Your task to perform on an android device: turn off priority inbox in the gmail app Image 0: 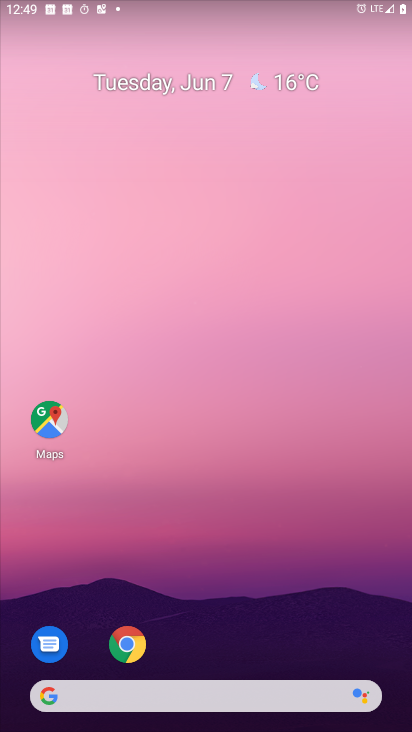
Step 0: drag from (33, 515) to (309, 68)
Your task to perform on an android device: turn off priority inbox in the gmail app Image 1: 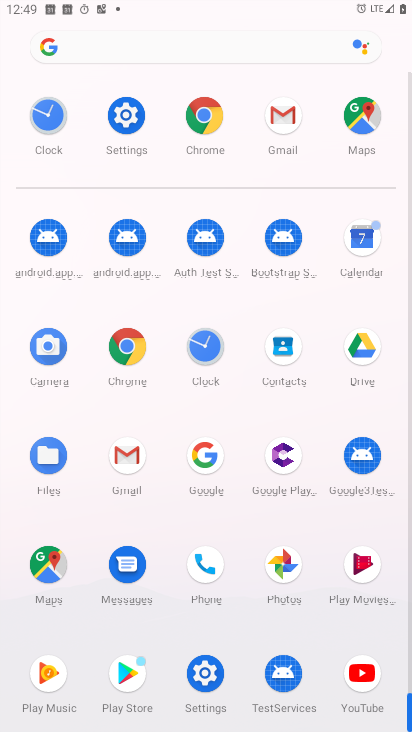
Step 1: click (275, 115)
Your task to perform on an android device: turn off priority inbox in the gmail app Image 2: 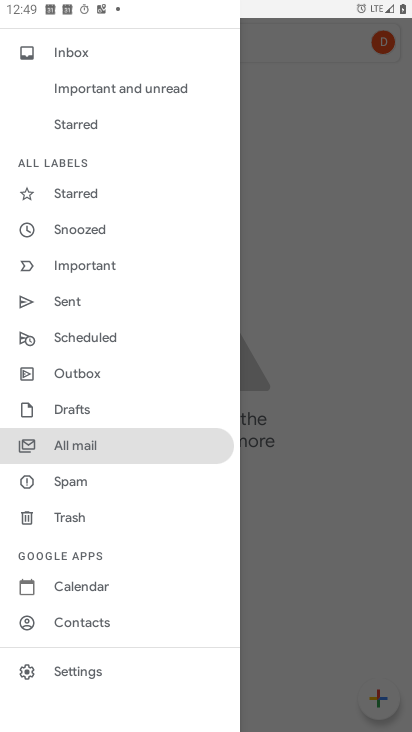
Step 2: click (83, 682)
Your task to perform on an android device: turn off priority inbox in the gmail app Image 3: 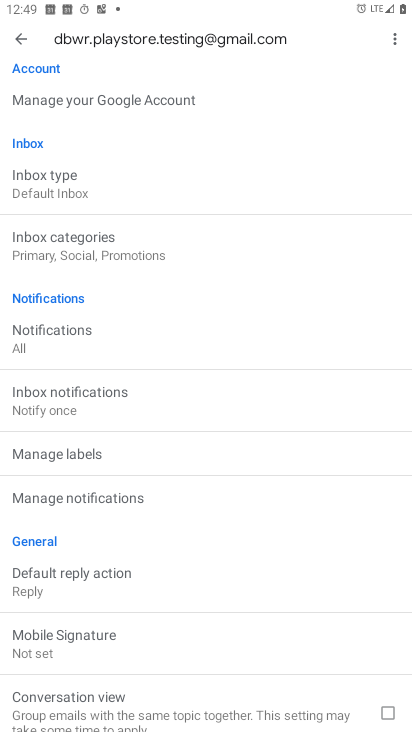
Step 3: click (59, 187)
Your task to perform on an android device: turn off priority inbox in the gmail app Image 4: 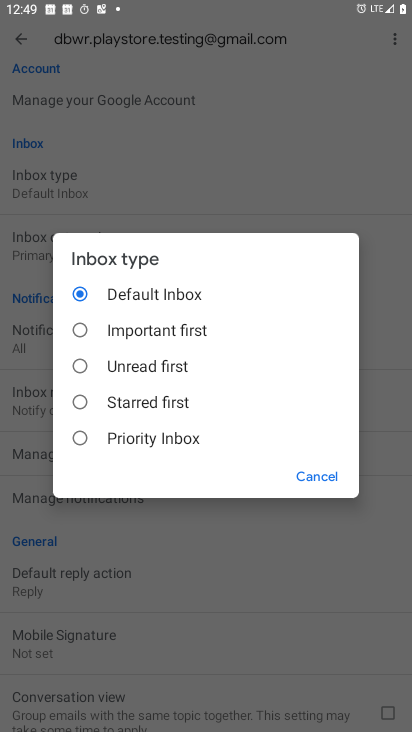
Step 4: task complete